Your task to perform on an android device: change the clock display to analog Image 0: 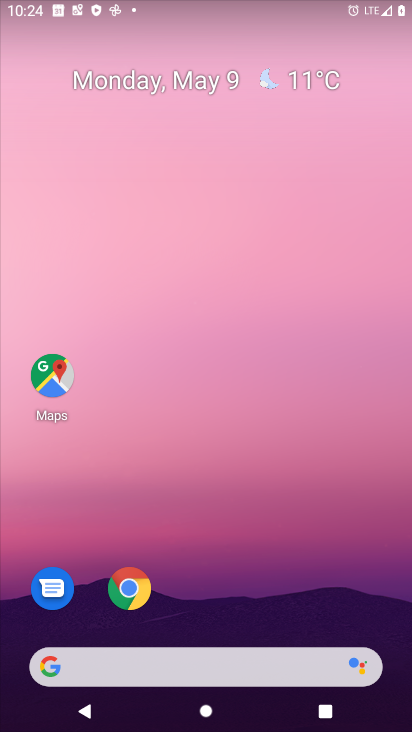
Step 0: drag from (337, 605) to (284, 78)
Your task to perform on an android device: change the clock display to analog Image 1: 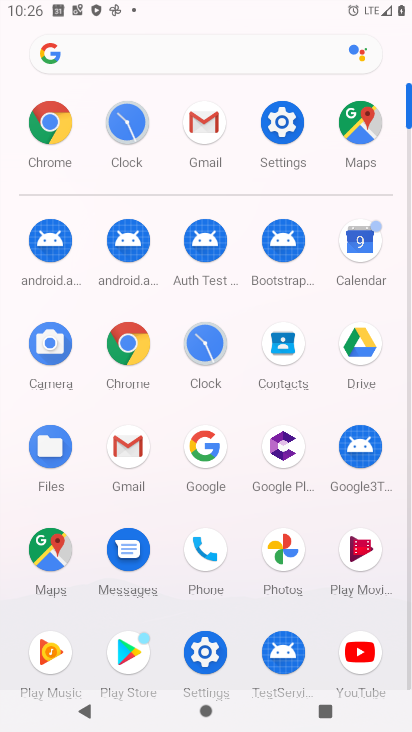
Step 1: click (209, 349)
Your task to perform on an android device: change the clock display to analog Image 2: 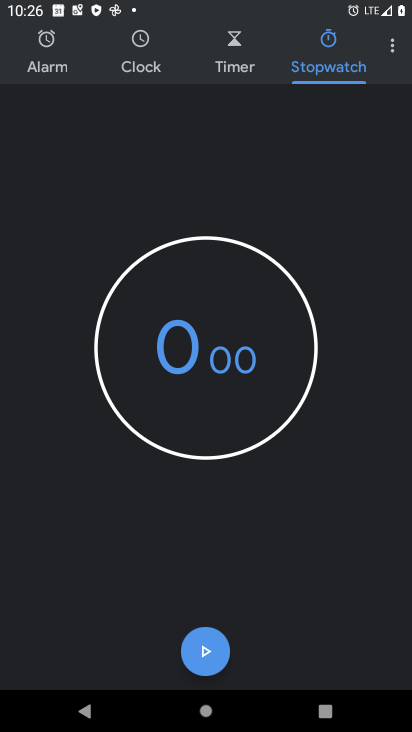
Step 2: click (396, 42)
Your task to perform on an android device: change the clock display to analog Image 3: 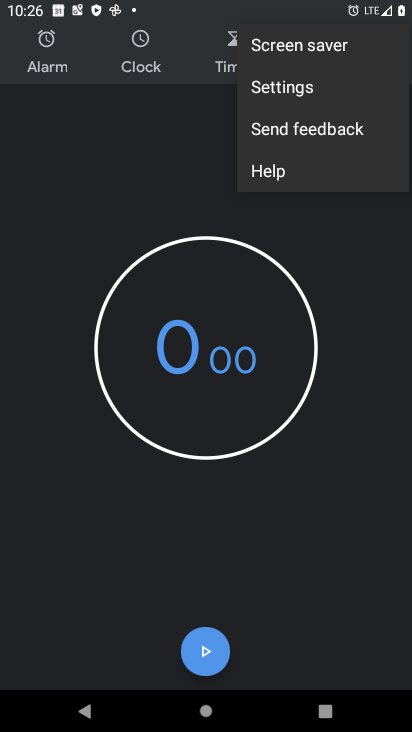
Step 3: click (340, 82)
Your task to perform on an android device: change the clock display to analog Image 4: 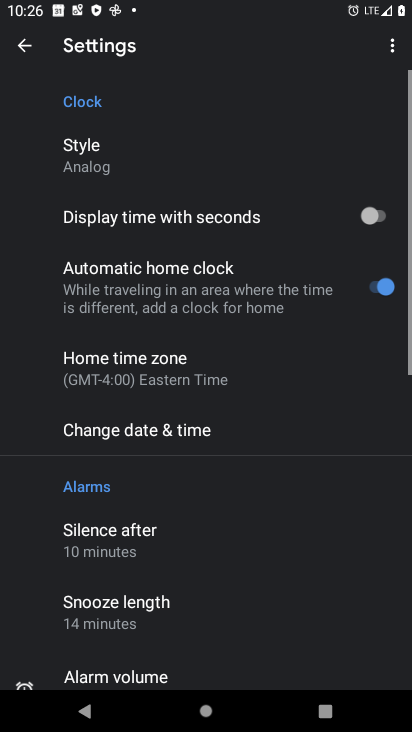
Step 4: click (111, 156)
Your task to perform on an android device: change the clock display to analog Image 5: 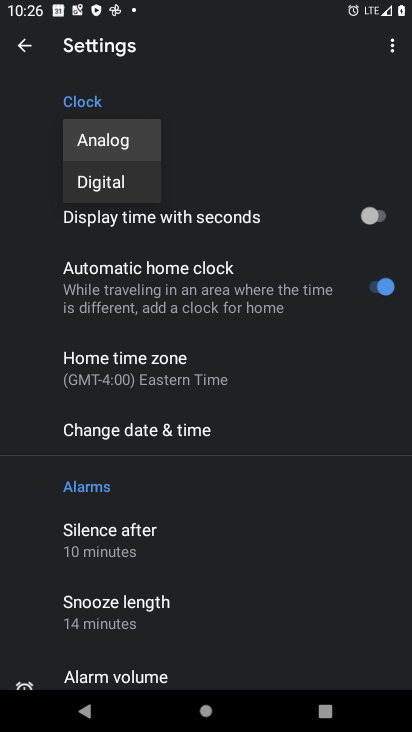
Step 5: click (109, 139)
Your task to perform on an android device: change the clock display to analog Image 6: 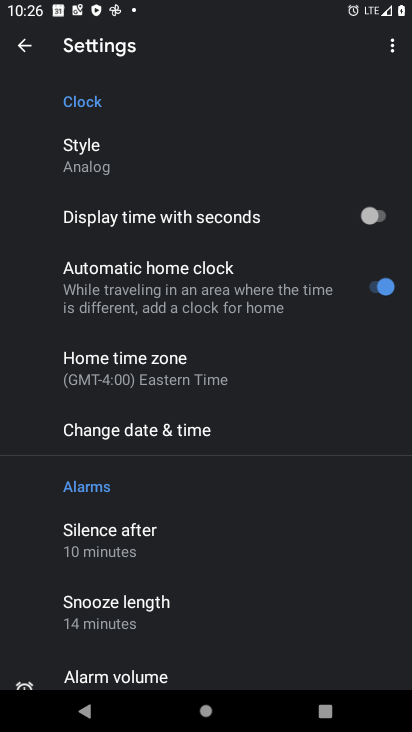
Step 6: task complete